Your task to perform on an android device: Set the phone to "Do not disturb". Image 0: 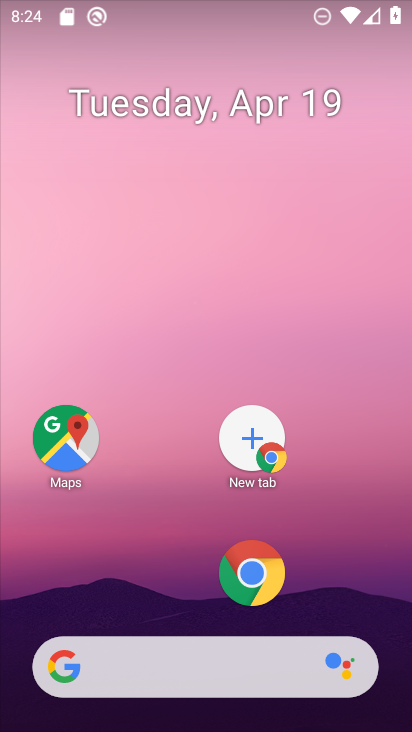
Step 0: drag from (312, 12) to (327, 701)
Your task to perform on an android device: Set the phone to "Do not disturb". Image 1: 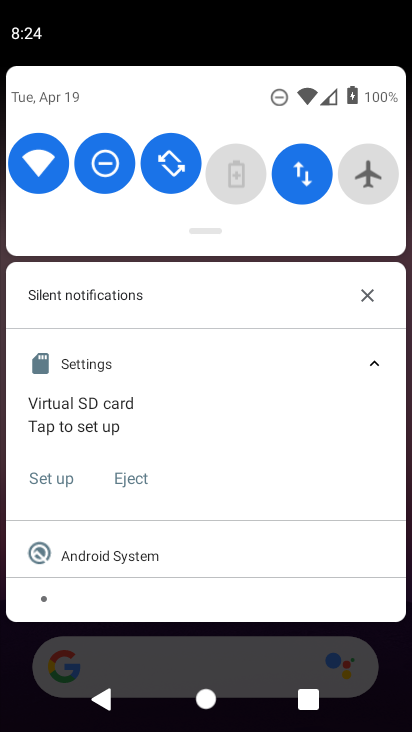
Step 1: task complete